Your task to perform on an android device: delete the emails in spam in the gmail app Image 0: 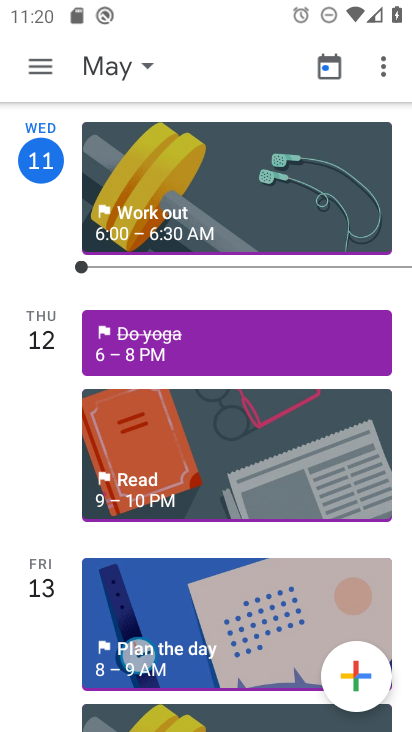
Step 0: press home button
Your task to perform on an android device: delete the emails in spam in the gmail app Image 1: 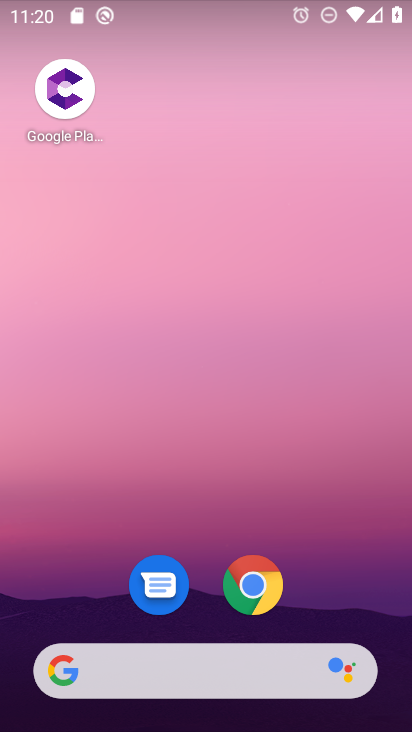
Step 1: drag from (316, 504) to (249, 17)
Your task to perform on an android device: delete the emails in spam in the gmail app Image 2: 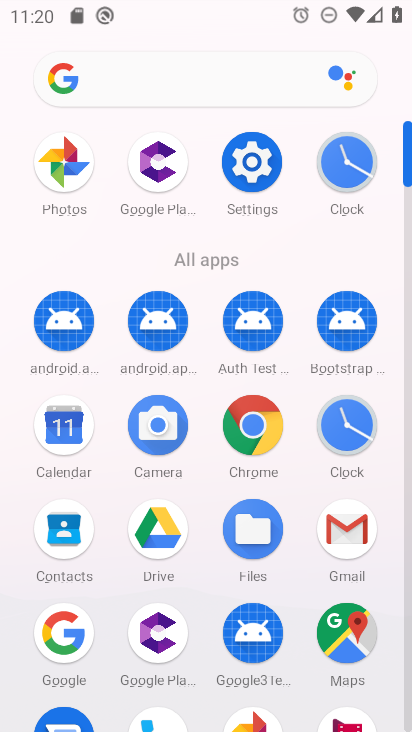
Step 2: click (355, 542)
Your task to perform on an android device: delete the emails in spam in the gmail app Image 3: 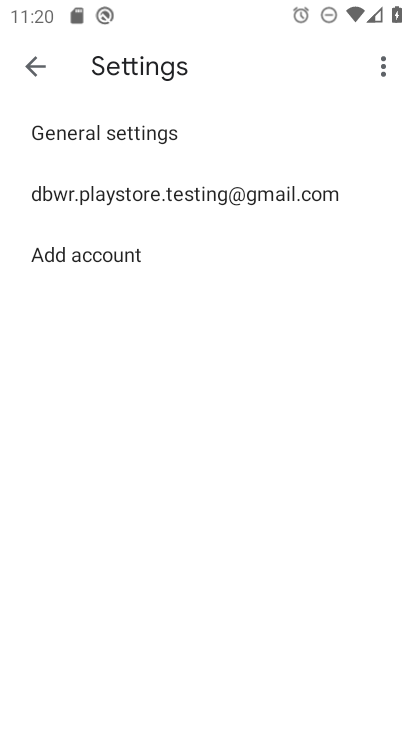
Step 3: click (38, 61)
Your task to perform on an android device: delete the emails in spam in the gmail app Image 4: 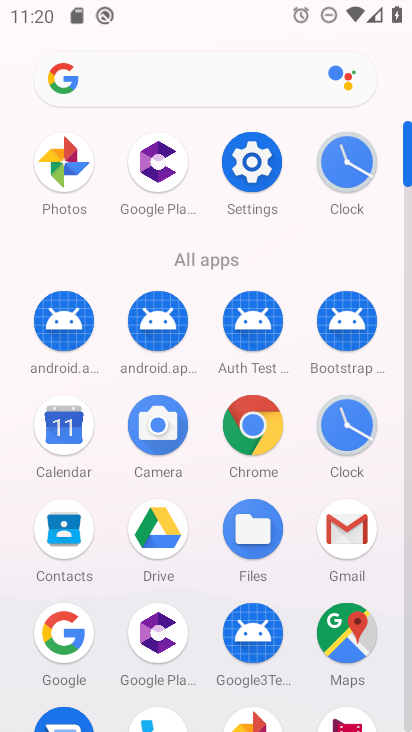
Step 4: click (328, 537)
Your task to perform on an android device: delete the emails in spam in the gmail app Image 5: 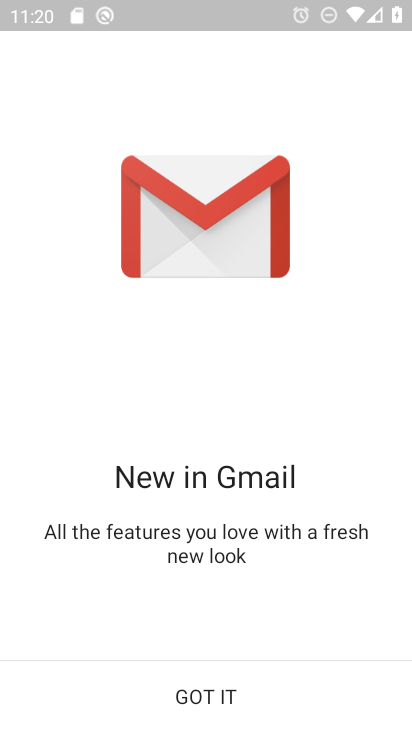
Step 5: click (284, 694)
Your task to perform on an android device: delete the emails in spam in the gmail app Image 6: 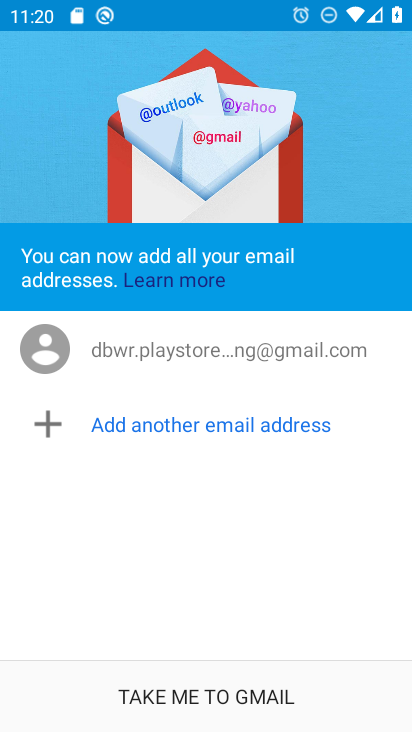
Step 6: click (272, 686)
Your task to perform on an android device: delete the emails in spam in the gmail app Image 7: 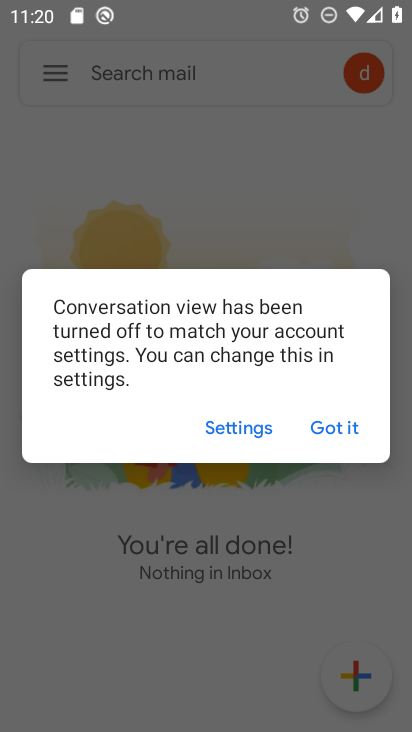
Step 7: click (328, 423)
Your task to perform on an android device: delete the emails in spam in the gmail app Image 8: 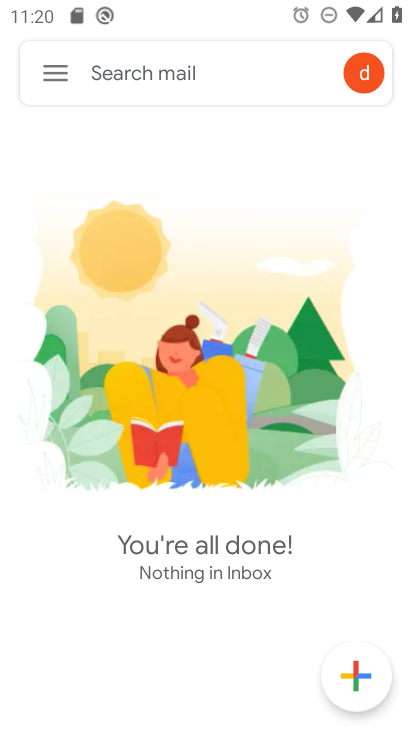
Step 8: click (54, 68)
Your task to perform on an android device: delete the emails in spam in the gmail app Image 9: 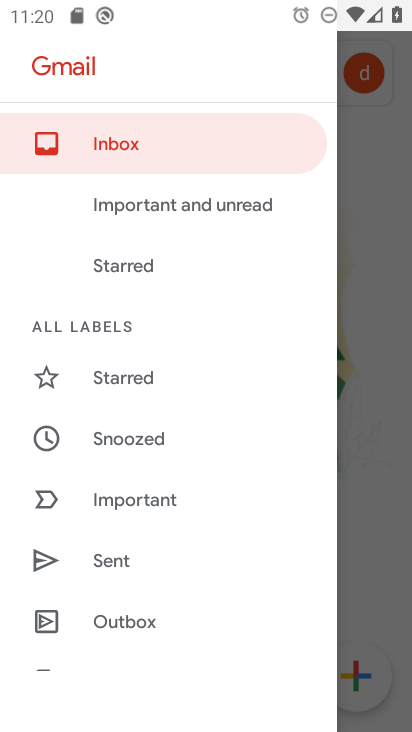
Step 9: drag from (179, 536) to (173, 116)
Your task to perform on an android device: delete the emails in spam in the gmail app Image 10: 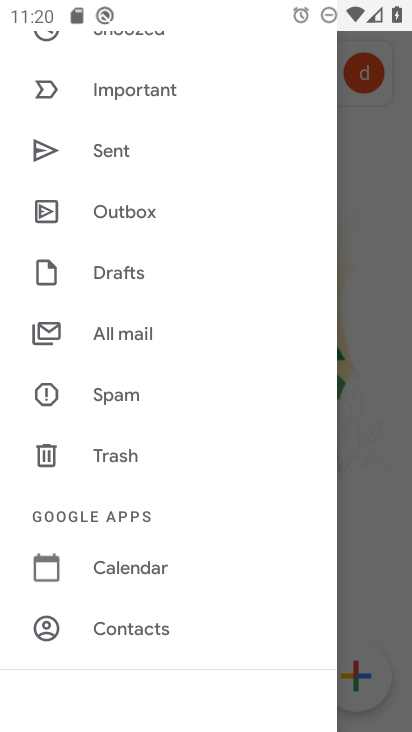
Step 10: click (143, 392)
Your task to perform on an android device: delete the emails in spam in the gmail app Image 11: 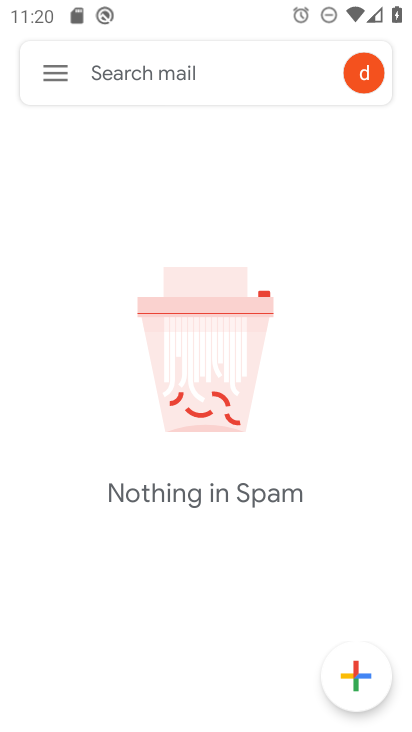
Step 11: task complete